Your task to perform on an android device: Go to Yahoo.com Image 0: 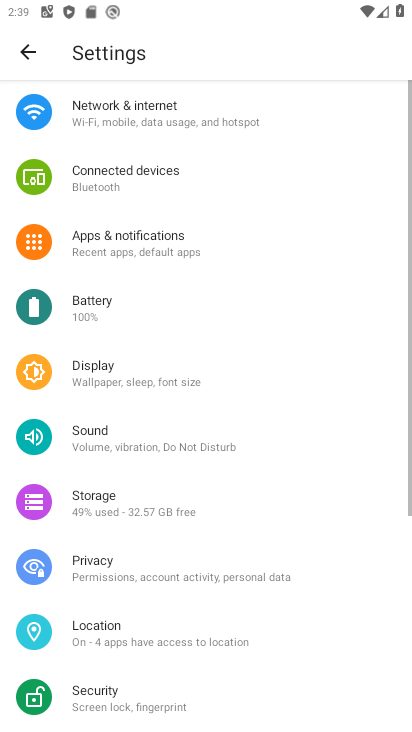
Step 0: press home button
Your task to perform on an android device: Go to Yahoo.com Image 1: 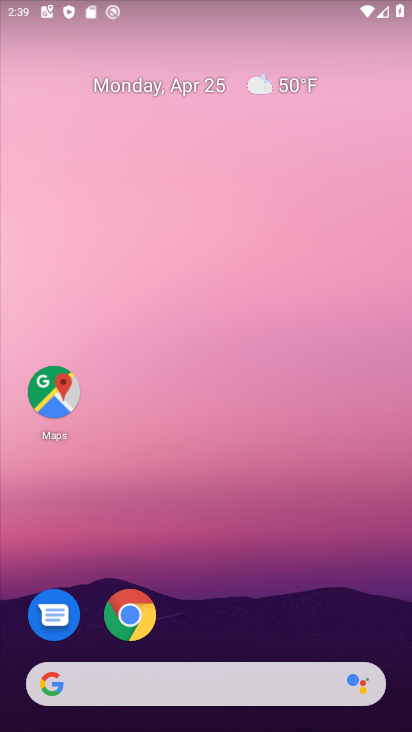
Step 1: drag from (229, 718) to (223, 303)
Your task to perform on an android device: Go to Yahoo.com Image 2: 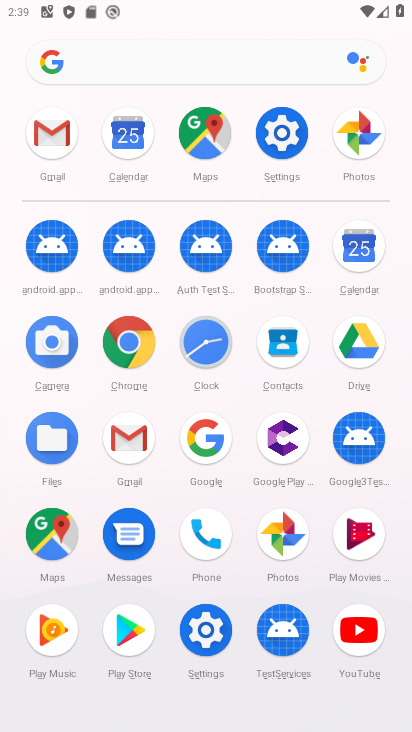
Step 2: click (131, 335)
Your task to perform on an android device: Go to Yahoo.com Image 3: 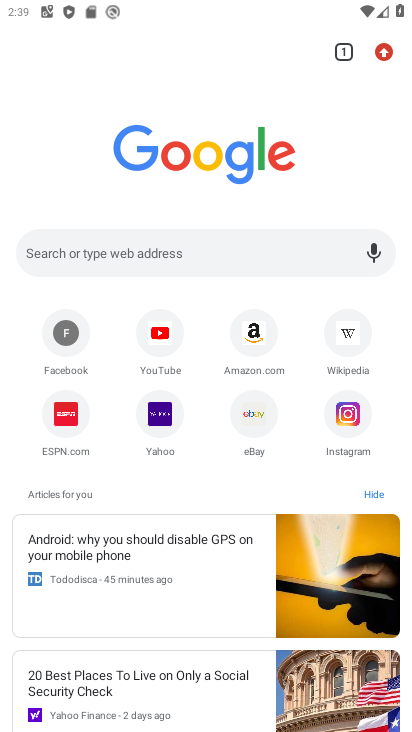
Step 3: click (160, 416)
Your task to perform on an android device: Go to Yahoo.com Image 4: 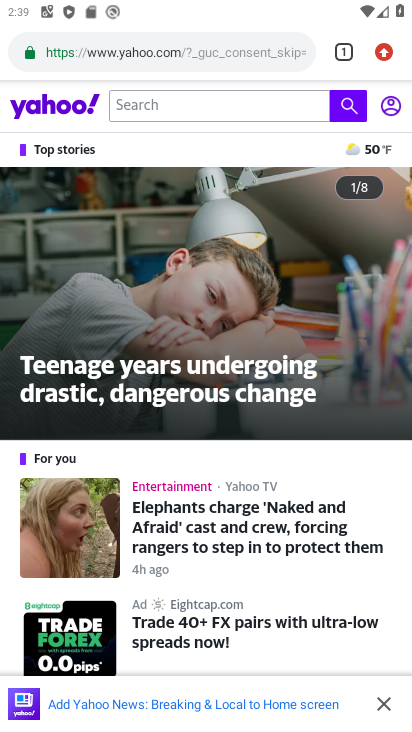
Step 4: task complete